Your task to perform on an android device: toggle priority inbox in the gmail app Image 0: 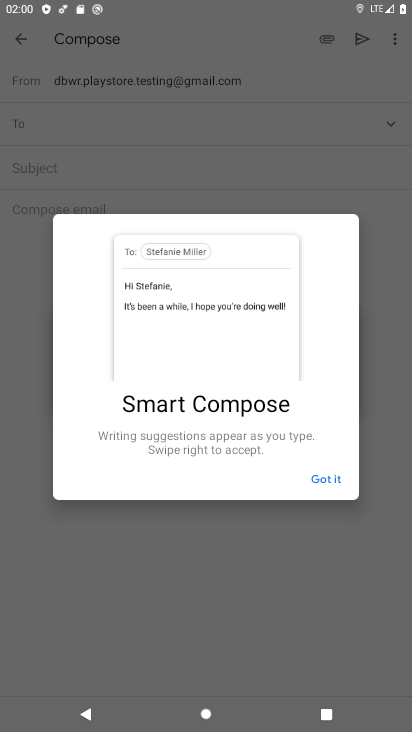
Step 0: press home button
Your task to perform on an android device: toggle priority inbox in the gmail app Image 1: 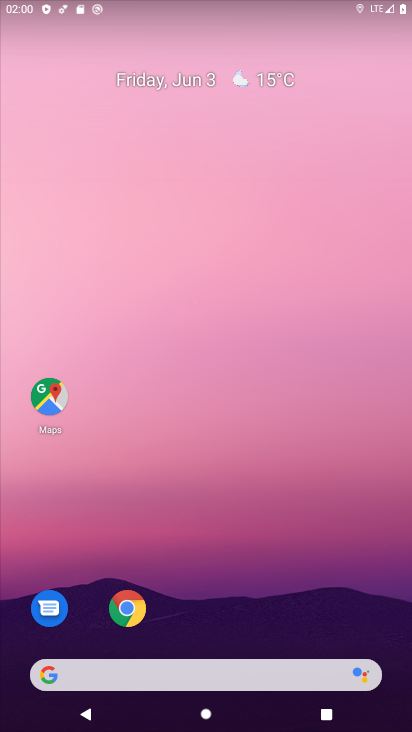
Step 1: drag from (249, 584) to (258, 142)
Your task to perform on an android device: toggle priority inbox in the gmail app Image 2: 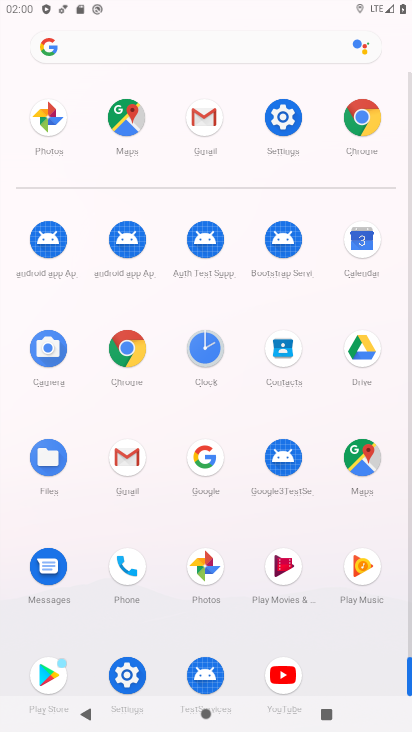
Step 2: click (128, 463)
Your task to perform on an android device: toggle priority inbox in the gmail app Image 3: 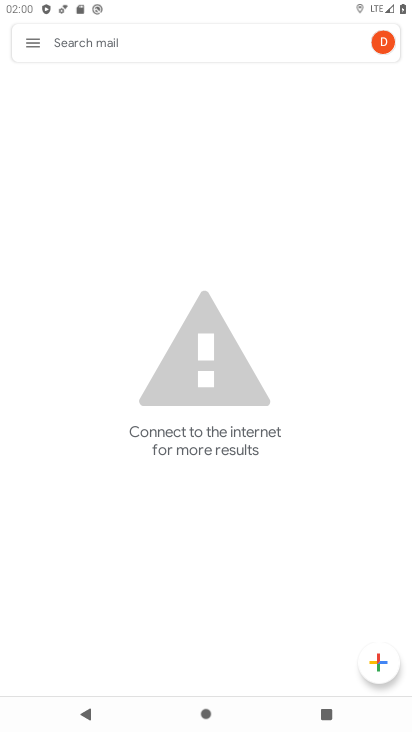
Step 3: click (32, 45)
Your task to perform on an android device: toggle priority inbox in the gmail app Image 4: 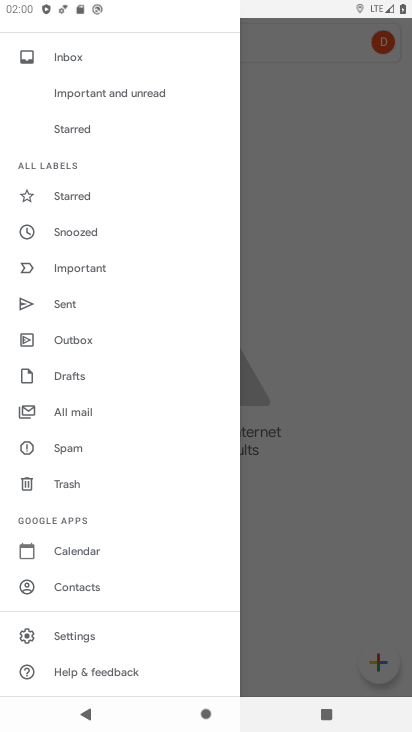
Step 4: click (92, 641)
Your task to perform on an android device: toggle priority inbox in the gmail app Image 5: 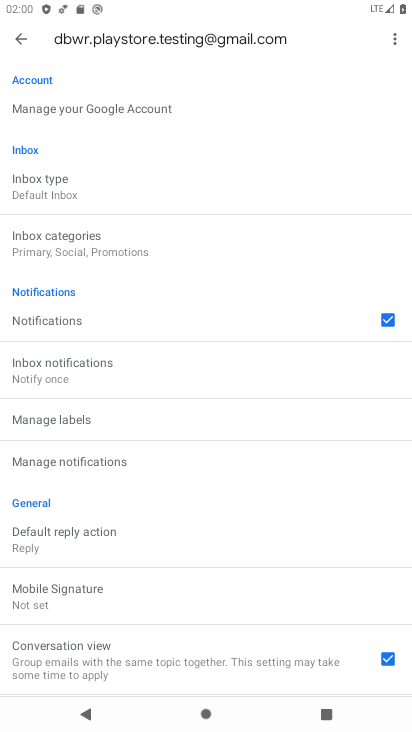
Step 5: click (53, 191)
Your task to perform on an android device: toggle priority inbox in the gmail app Image 6: 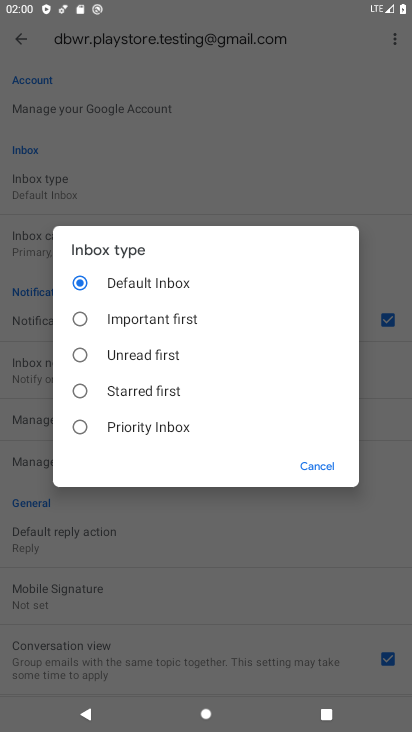
Step 6: click (143, 426)
Your task to perform on an android device: toggle priority inbox in the gmail app Image 7: 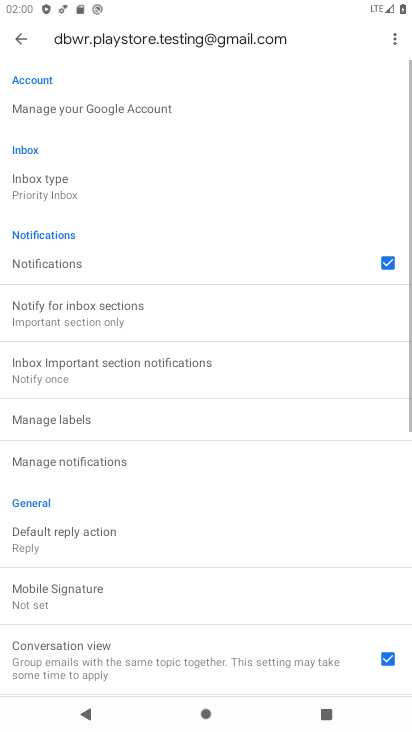
Step 7: task complete